Your task to perform on an android device: find photos in the google photos app Image 0: 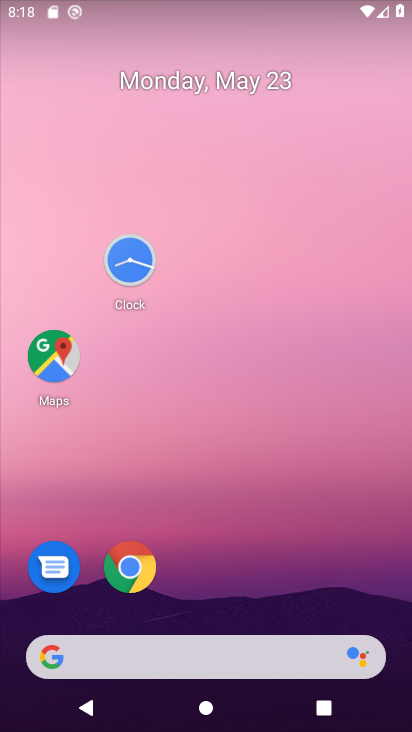
Step 0: drag from (265, 596) to (314, 77)
Your task to perform on an android device: find photos in the google photos app Image 1: 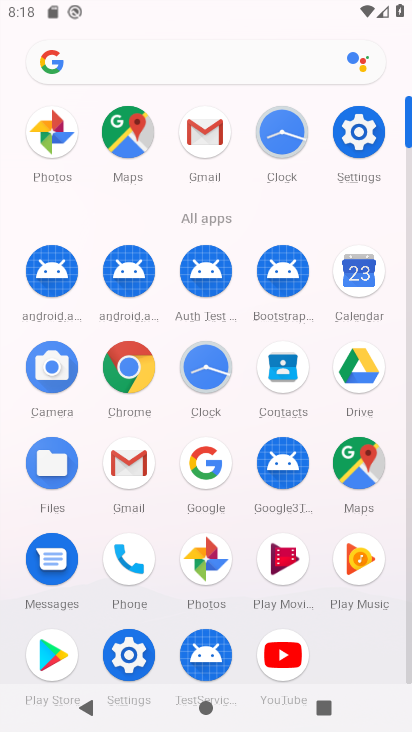
Step 1: click (204, 544)
Your task to perform on an android device: find photos in the google photos app Image 2: 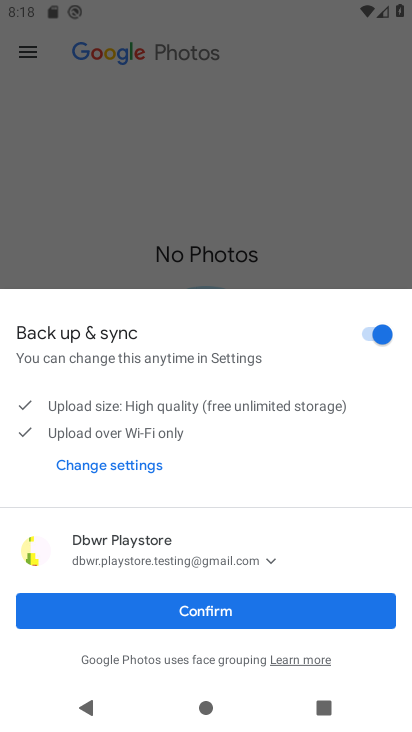
Step 2: click (314, 611)
Your task to perform on an android device: find photos in the google photos app Image 3: 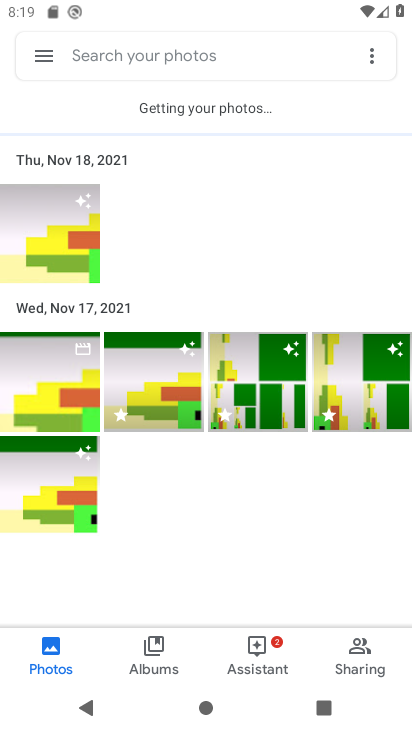
Step 3: task complete